Your task to perform on an android device: turn off sleep mode Image 0: 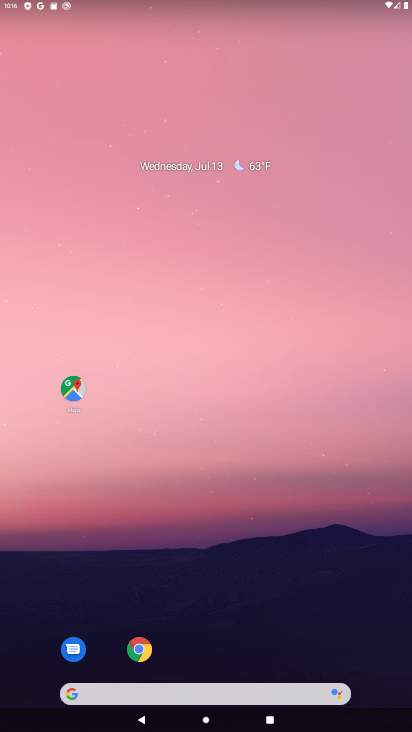
Step 0: drag from (212, 625) to (230, 156)
Your task to perform on an android device: turn off sleep mode Image 1: 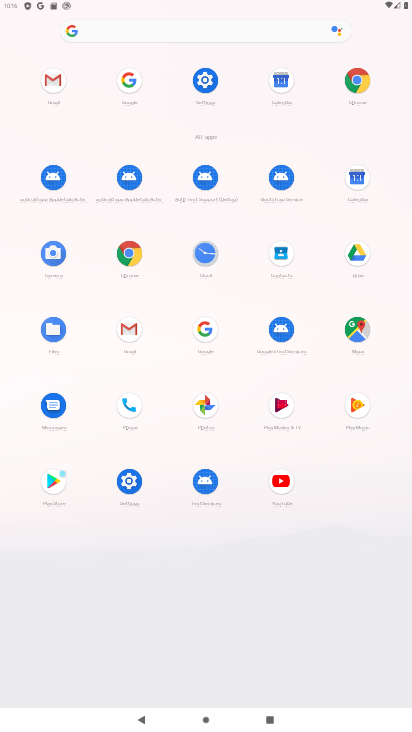
Step 1: click (195, 85)
Your task to perform on an android device: turn off sleep mode Image 2: 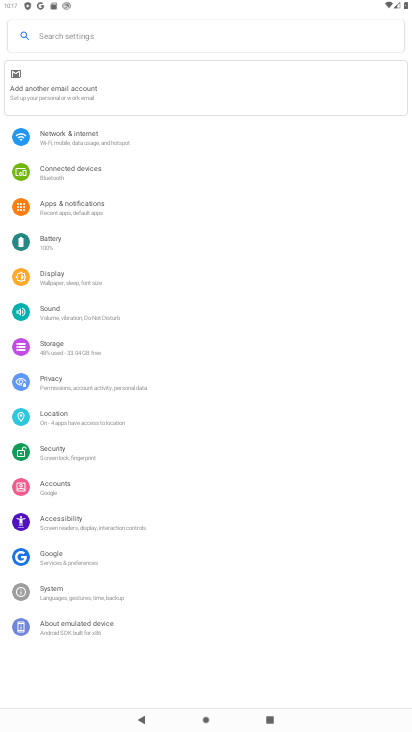
Step 2: task complete